Your task to perform on an android device: search for starred emails in the gmail app Image 0: 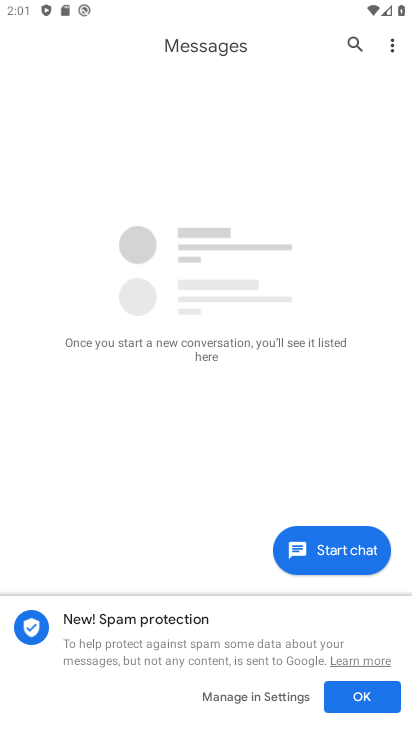
Step 0: press home button
Your task to perform on an android device: search for starred emails in the gmail app Image 1: 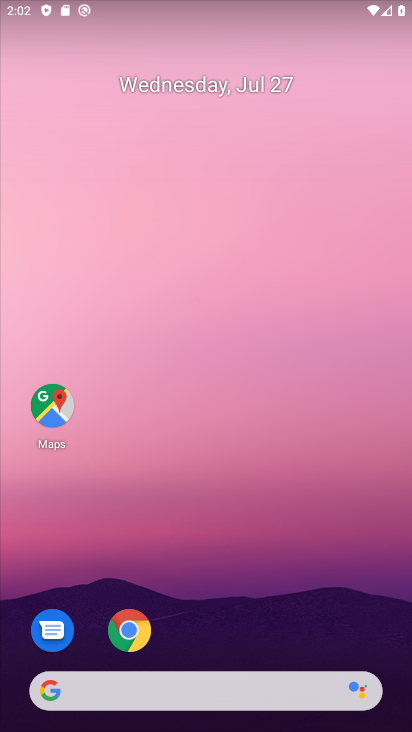
Step 1: drag from (274, 642) to (276, 120)
Your task to perform on an android device: search for starred emails in the gmail app Image 2: 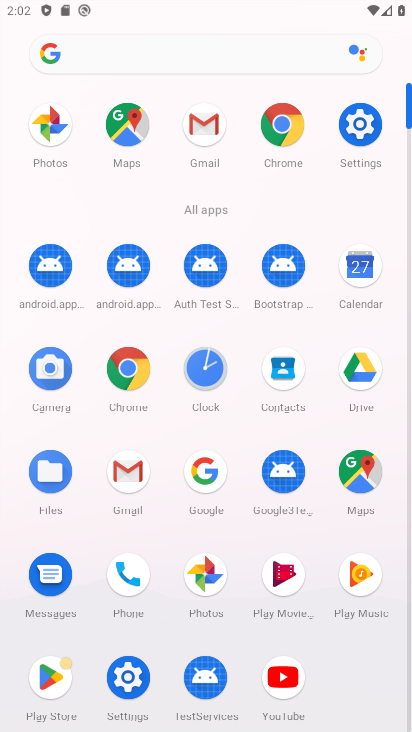
Step 2: click (129, 480)
Your task to perform on an android device: search for starred emails in the gmail app Image 3: 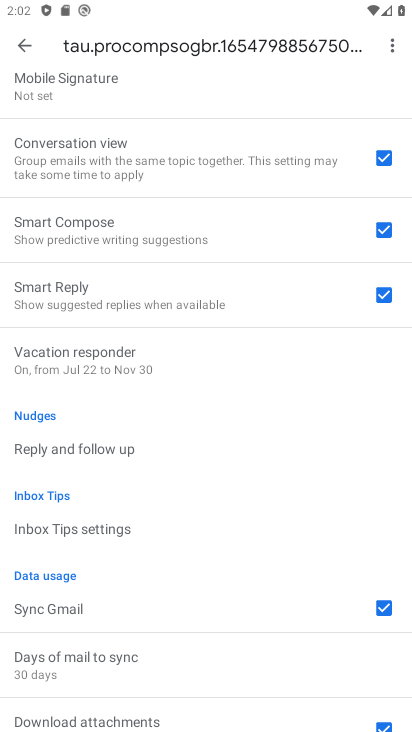
Step 3: click (32, 54)
Your task to perform on an android device: search for starred emails in the gmail app Image 4: 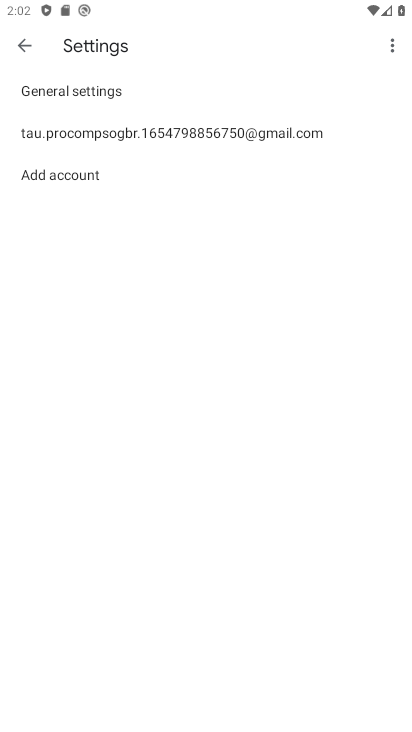
Step 4: click (32, 54)
Your task to perform on an android device: search for starred emails in the gmail app Image 5: 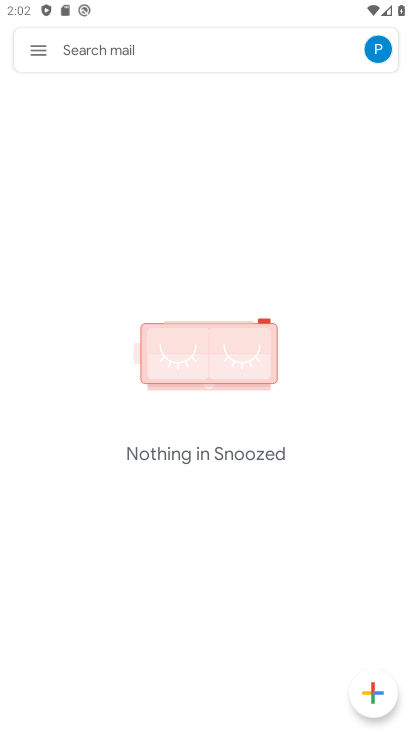
Step 5: click (42, 61)
Your task to perform on an android device: search for starred emails in the gmail app Image 6: 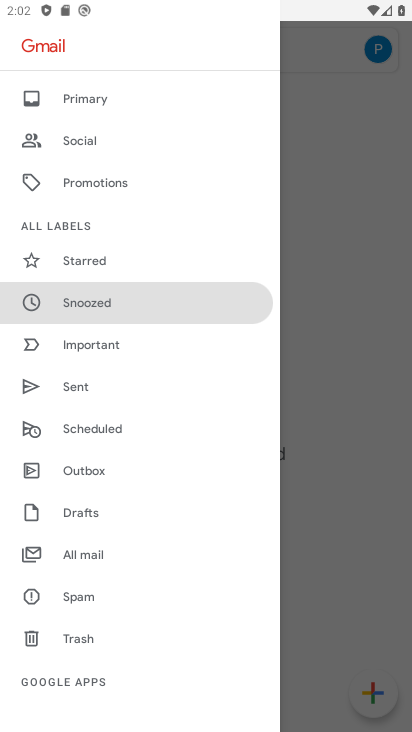
Step 6: click (79, 264)
Your task to perform on an android device: search for starred emails in the gmail app Image 7: 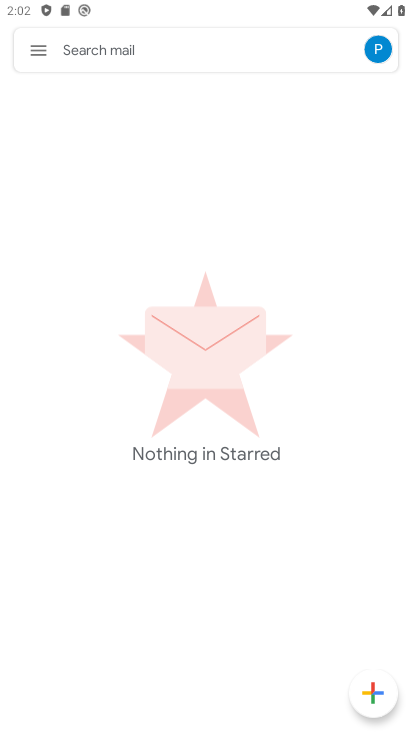
Step 7: task complete